Your task to perform on an android device: see sites visited before in the chrome app Image 0: 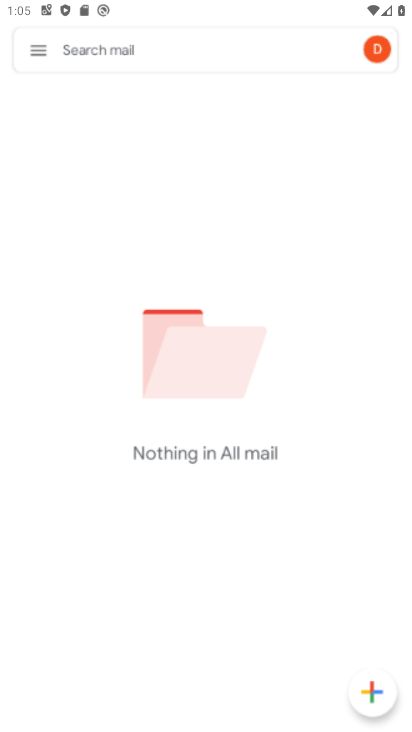
Step 0: drag from (273, 630) to (254, 186)
Your task to perform on an android device: see sites visited before in the chrome app Image 1: 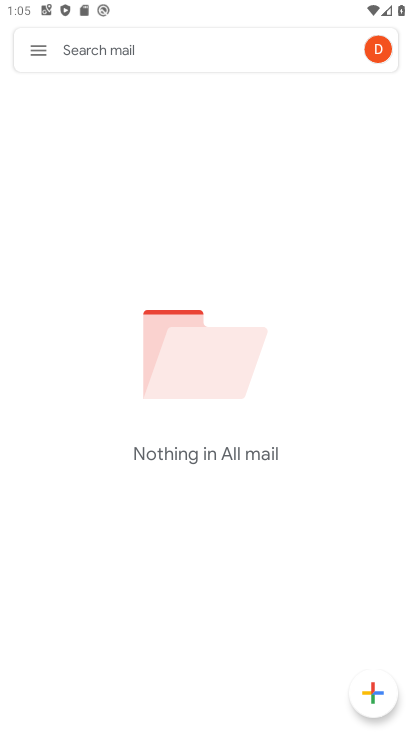
Step 1: press home button
Your task to perform on an android device: see sites visited before in the chrome app Image 2: 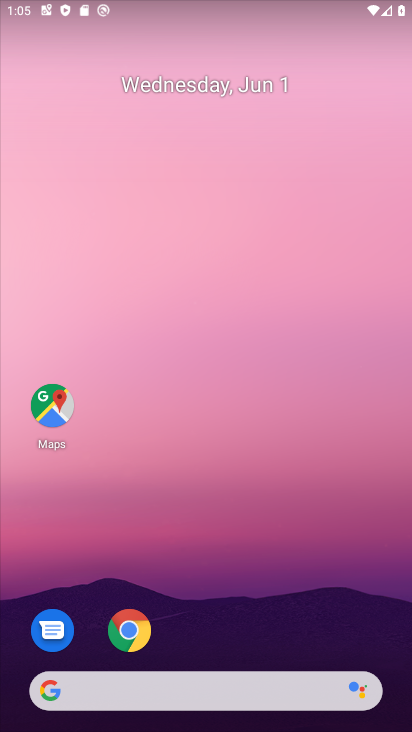
Step 2: click (126, 638)
Your task to perform on an android device: see sites visited before in the chrome app Image 3: 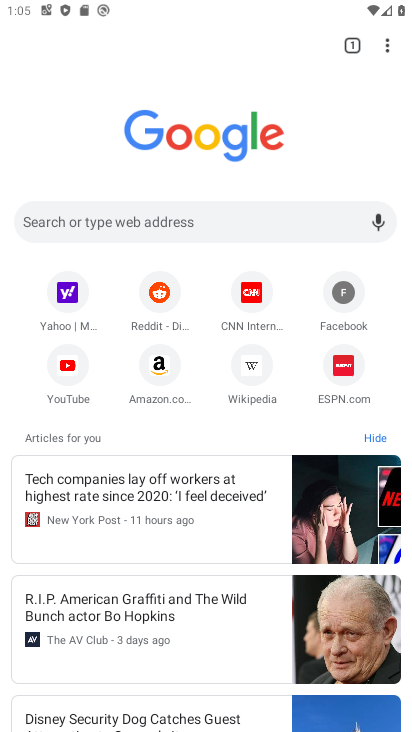
Step 3: task complete